Your task to perform on an android device: Empty the shopping cart on walmart. Add macbook pro 15 inch to the cart on walmart, then select checkout. Image 0: 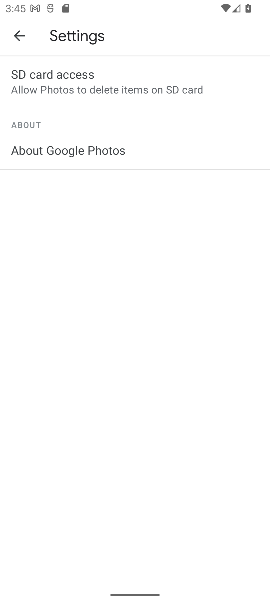
Step 0: press home button
Your task to perform on an android device: Empty the shopping cart on walmart. Add macbook pro 15 inch to the cart on walmart, then select checkout. Image 1: 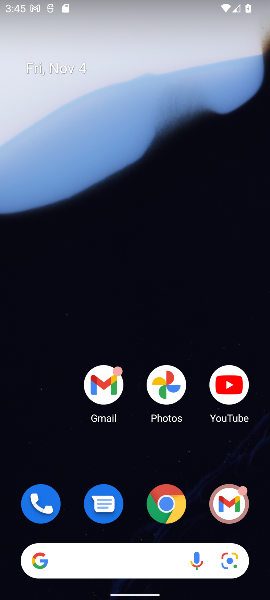
Step 1: click (170, 503)
Your task to perform on an android device: Empty the shopping cart on walmart. Add macbook pro 15 inch to the cart on walmart, then select checkout. Image 2: 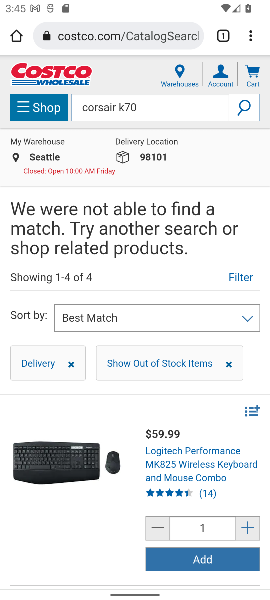
Step 2: click (109, 39)
Your task to perform on an android device: Empty the shopping cart on walmart. Add macbook pro 15 inch to the cart on walmart, then select checkout. Image 3: 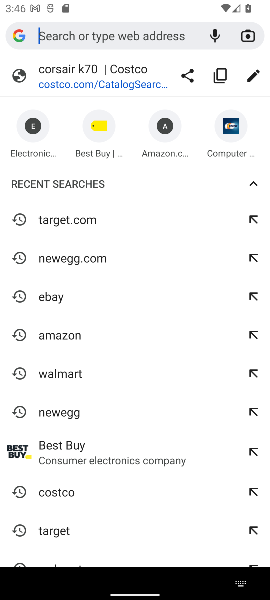
Step 3: click (67, 372)
Your task to perform on an android device: Empty the shopping cart on walmart. Add macbook pro 15 inch to the cart on walmart, then select checkout. Image 4: 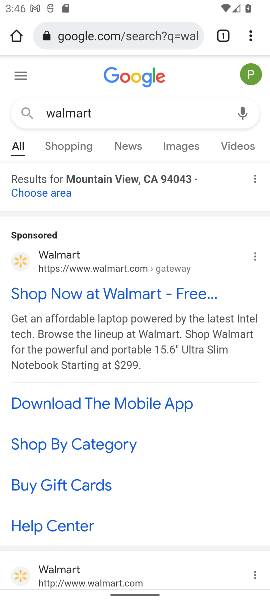
Step 4: drag from (117, 440) to (136, 261)
Your task to perform on an android device: Empty the shopping cart on walmart. Add macbook pro 15 inch to the cart on walmart, then select checkout. Image 5: 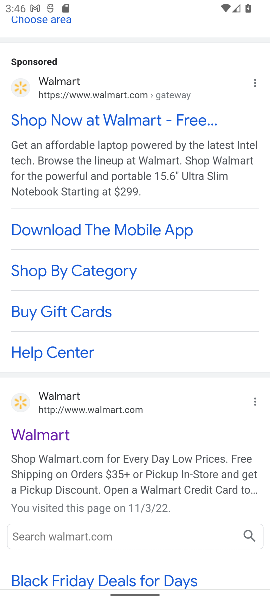
Step 5: click (39, 440)
Your task to perform on an android device: Empty the shopping cart on walmart. Add macbook pro 15 inch to the cart on walmart, then select checkout. Image 6: 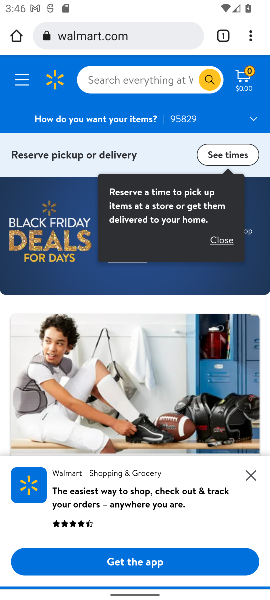
Step 6: click (243, 79)
Your task to perform on an android device: Empty the shopping cart on walmart. Add macbook pro 15 inch to the cart on walmart, then select checkout. Image 7: 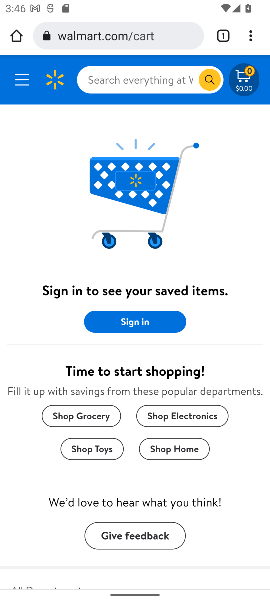
Step 7: click (104, 89)
Your task to perform on an android device: Empty the shopping cart on walmart. Add macbook pro 15 inch to the cart on walmart, then select checkout. Image 8: 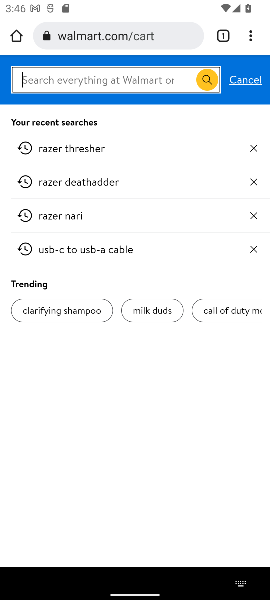
Step 8: type "macbook pro 15 inch"
Your task to perform on an android device: Empty the shopping cart on walmart. Add macbook pro 15 inch to the cart on walmart, then select checkout. Image 9: 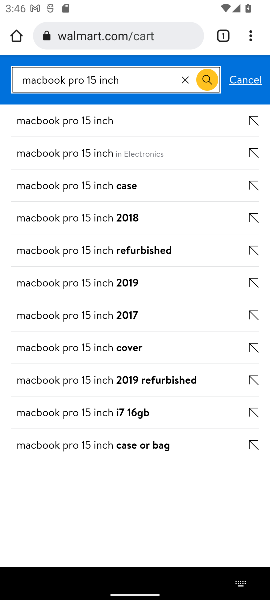
Step 9: click (89, 134)
Your task to perform on an android device: Empty the shopping cart on walmart. Add macbook pro 15 inch to the cart on walmart, then select checkout. Image 10: 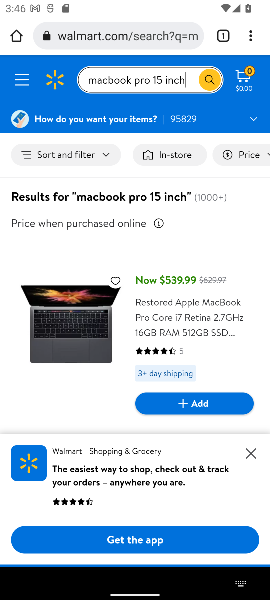
Step 10: drag from (79, 340) to (95, 165)
Your task to perform on an android device: Empty the shopping cart on walmart. Add macbook pro 15 inch to the cart on walmart, then select checkout. Image 11: 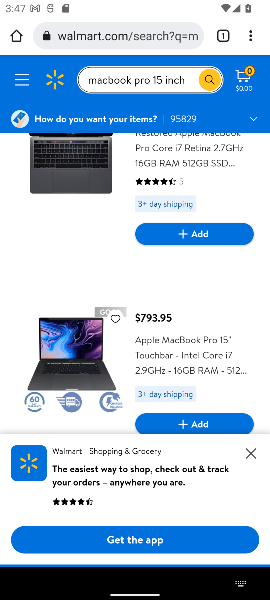
Step 11: drag from (103, 265) to (99, 346)
Your task to perform on an android device: Empty the shopping cart on walmart. Add macbook pro 15 inch to the cart on walmart, then select checkout. Image 12: 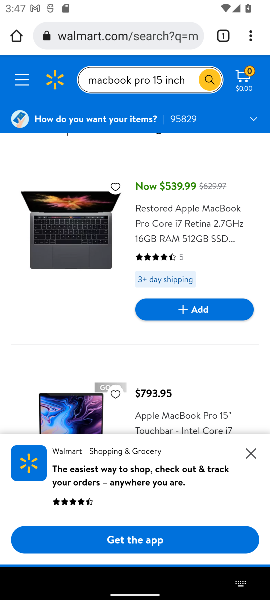
Step 12: drag from (87, 331) to (81, 221)
Your task to perform on an android device: Empty the shopping cart on walmart. Add macbook pro 15 inch to the cart on walmart, then select checkout. Image 13: 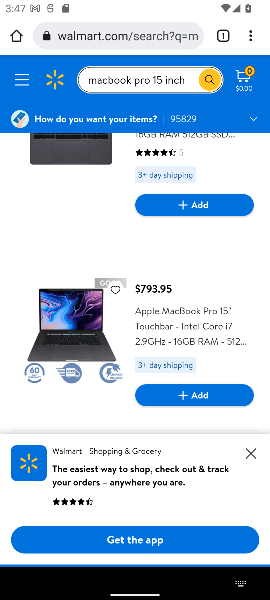
Step 13: click (192, 395)
Your task to perform on an android device: Empty the shopping cart on walmart. Add macbook pro 15 inch to the cart on walmart, then select checkout. Image 14: 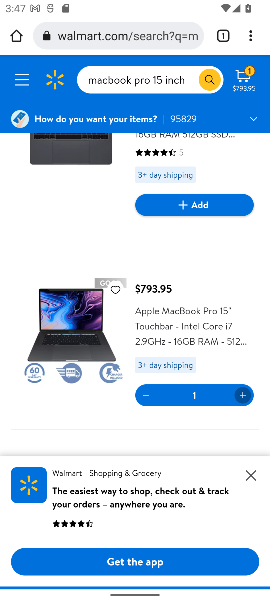
Step 14: click (87, 353)
Your task to perform on an android device: Empty the shopping cart on walmart. Add macbook pro 15 inch to the cart on walmart, then select checkout. Image 15: 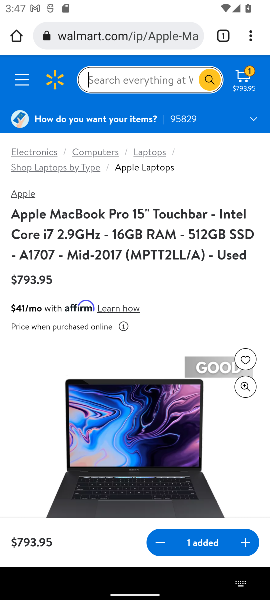
Step 15: drag from (139, 441) to (145, 176)
Your task to perform on an android device: Empty the shopping cart on walmart. Add macbook pro 15 inch to the cart on walmart, then select checkout. Image 16: 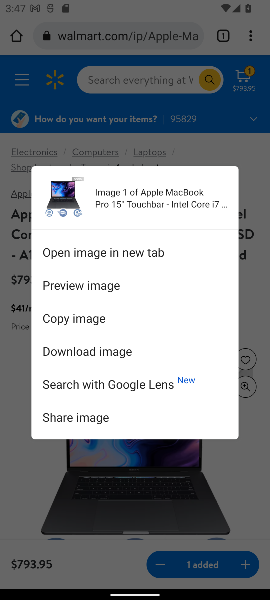
Step 16: click (250, 74)
Your task to perform on an android device: Empty the shopping cart on walmart. Add macbook pro 15 inch to the cart on walmart, then select checkout. Image 17: 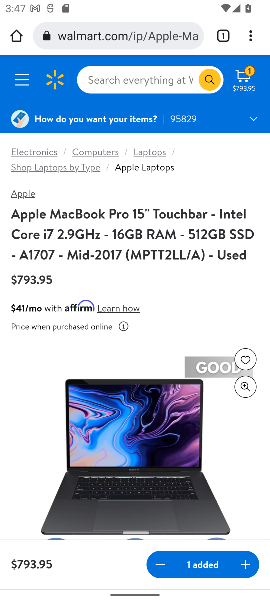
Step 17: click (246, 85)
Your task to perform on an android device: Empty the shopping cart on walmart. Add macbook pro 15 inch to the cart on walmart, then select checkout. Image 18: 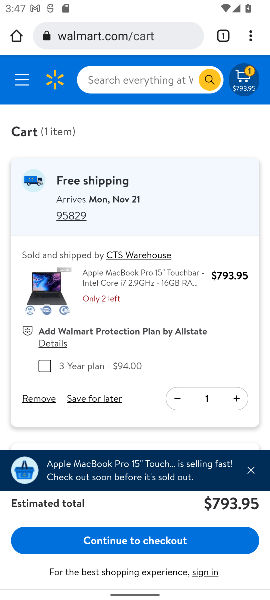
Step 18: click (110, 546)
Your task to perform on an android device: Empty the shopping cart on walmart. Add macbook pro 15 inch to the cart on walmart, then select checkout. Image 19: 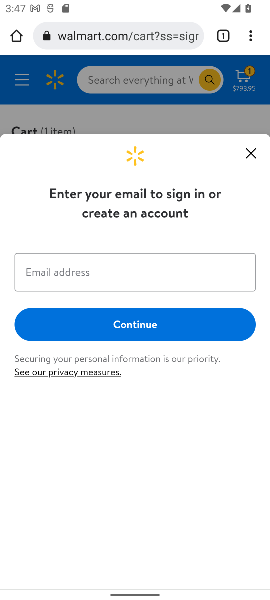
Step 19: task complete